Your task to perform on an android device: uninstall "Indeed Job Search" Image 0: 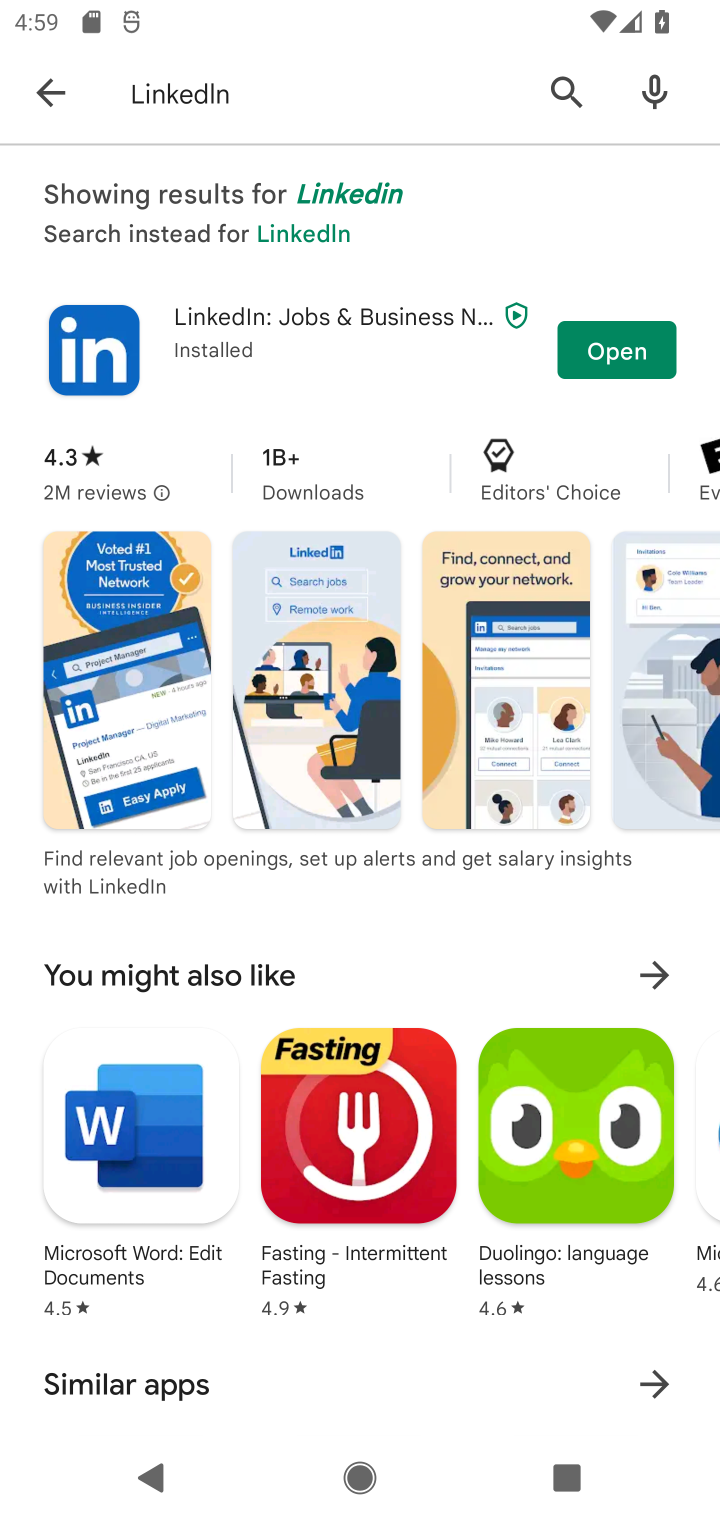
Step 0: click (402, 112)
Your task to perform on an android device: uninstall "Indeed Job Search" Image 1: 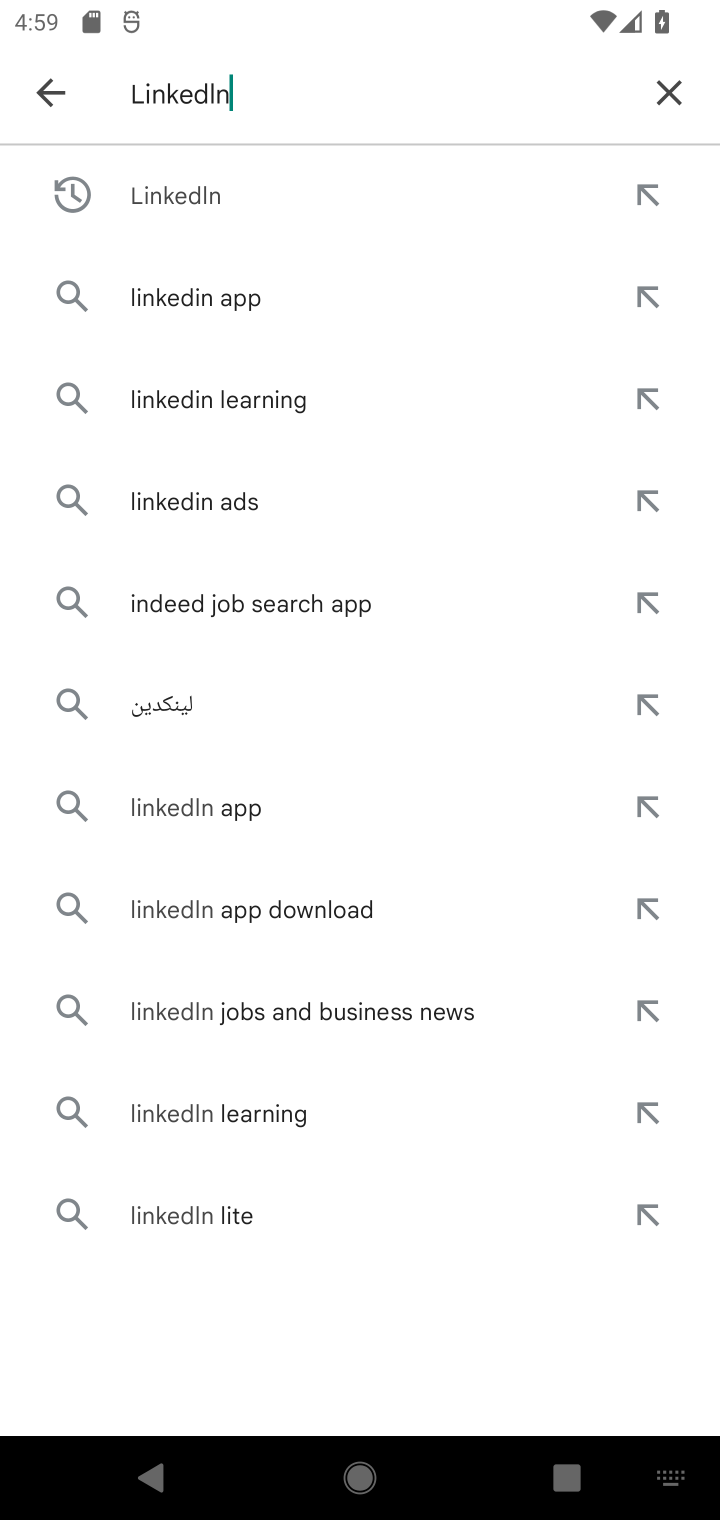
Step 1: click (668, 88)
Your task to perform on an android device: uninstall "Indeed Job Search" Image 2: 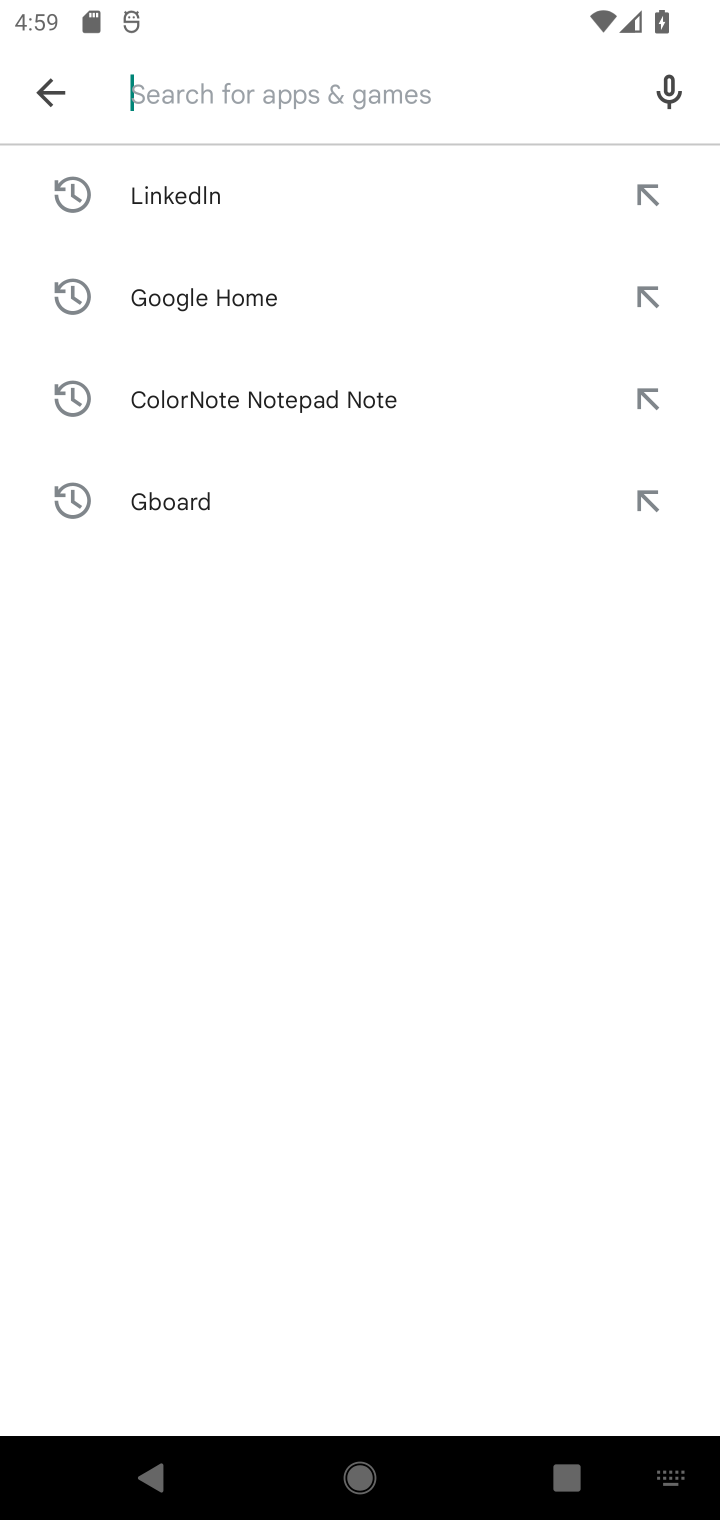
Step 2: type "Indeed Job Search"
Your task to perform on an android device: uninstall "Indeed Job Search" Image 3: 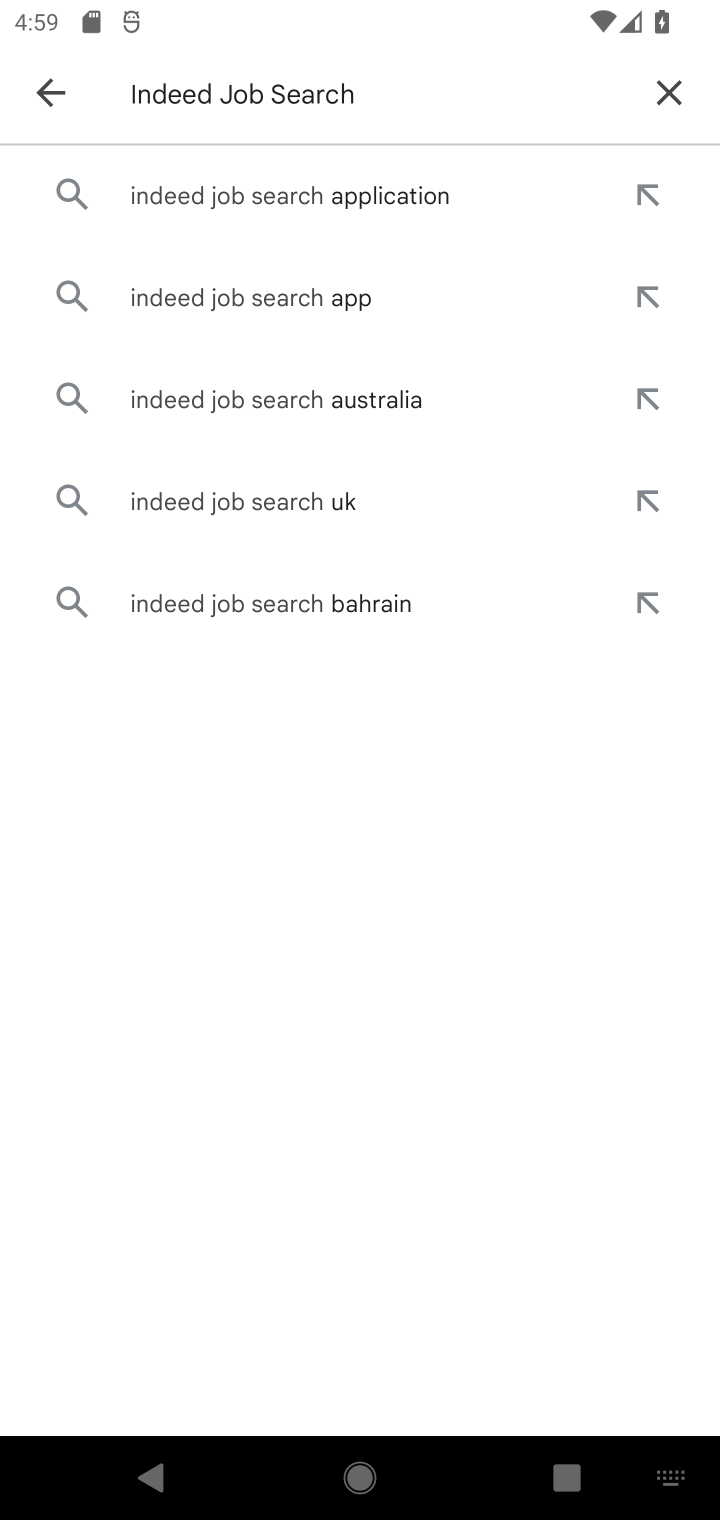
Step 3: press enter
Your task to perform on an android device: uninstall "Indeed Job Search" Image 4: 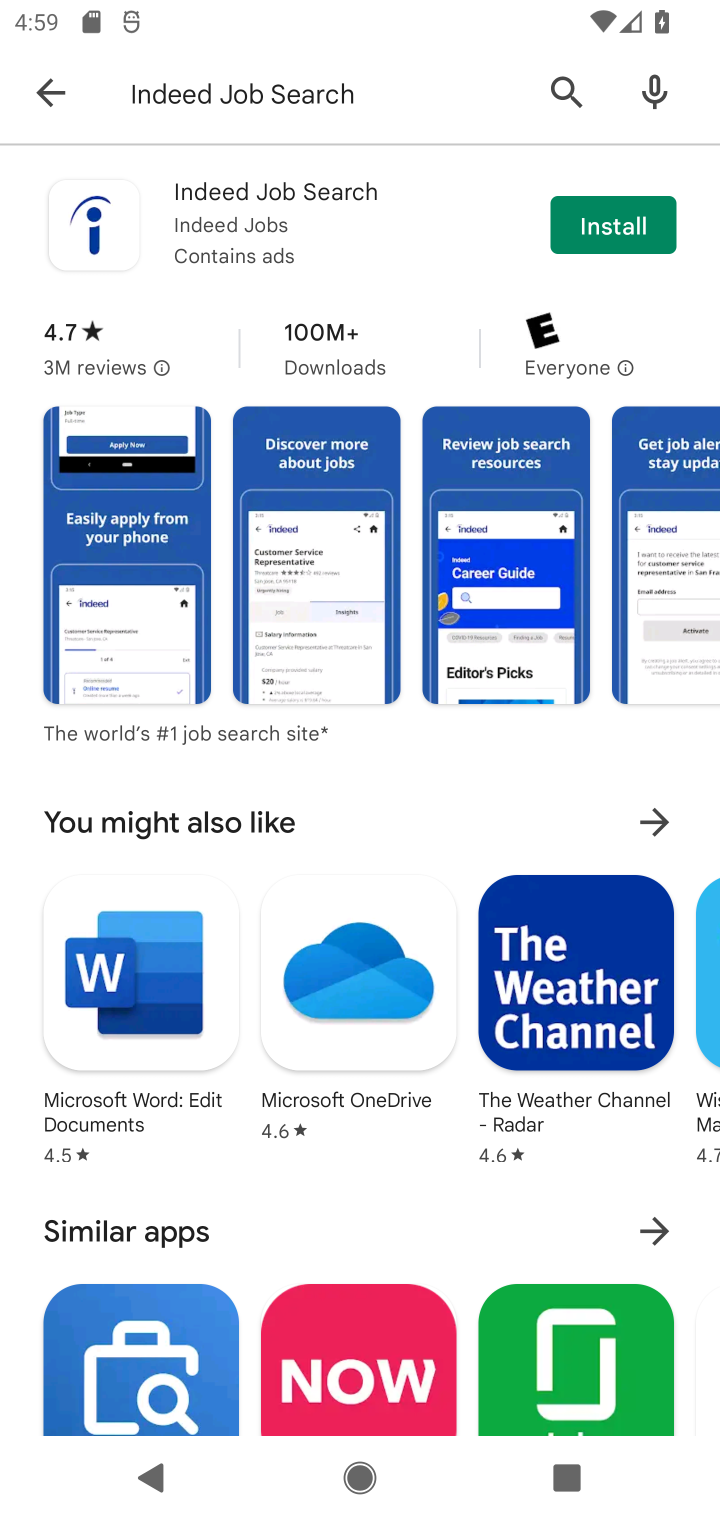
Step 4: task complete